Your task to perform on an android device: find photos in the google photos app Image 0: 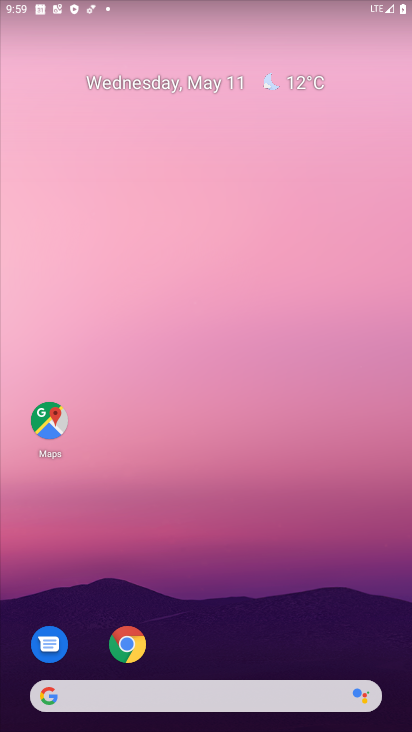
Step 0: drag from (224, 601) to (277, 110)
Your task to perform on an android device: find photos in the google photos app Image 1: 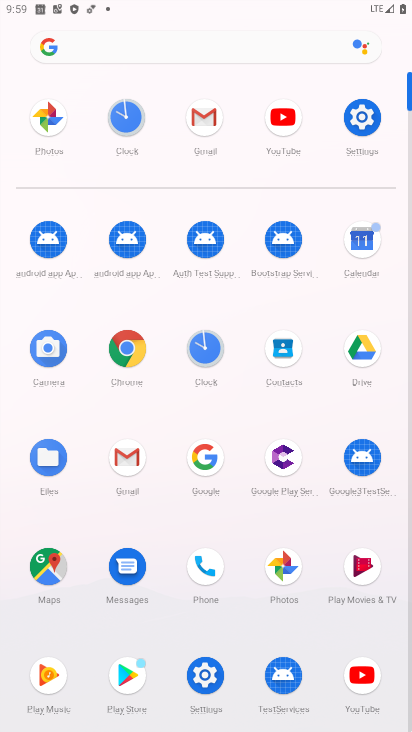
Step 1: click (297, 578)
Your task to perform on an android device: find photos in the google photos app Image 2: 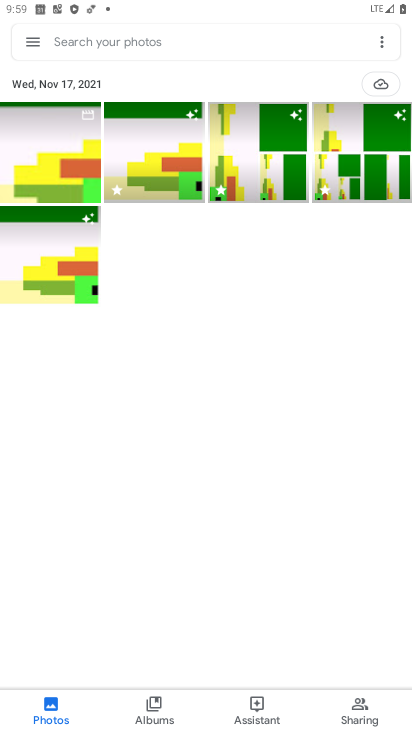
Step 2: task complete